Your task to perform on an android device: visit the assistant section in the google photos Image 0: 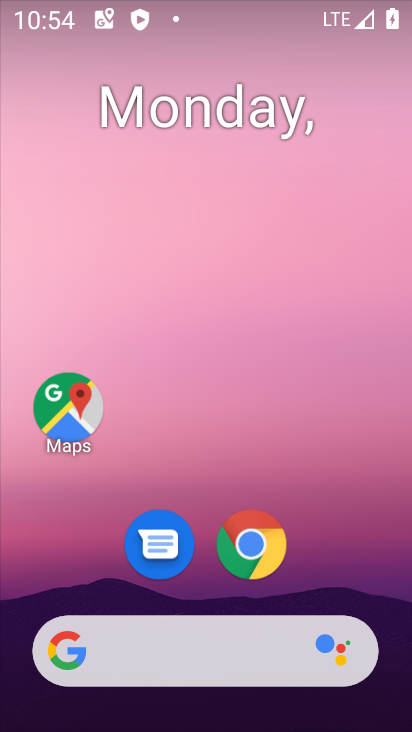
Step 0: click (251, 549)
Your task to perform on an android device: visit the assistant section in the google photos Image 1: 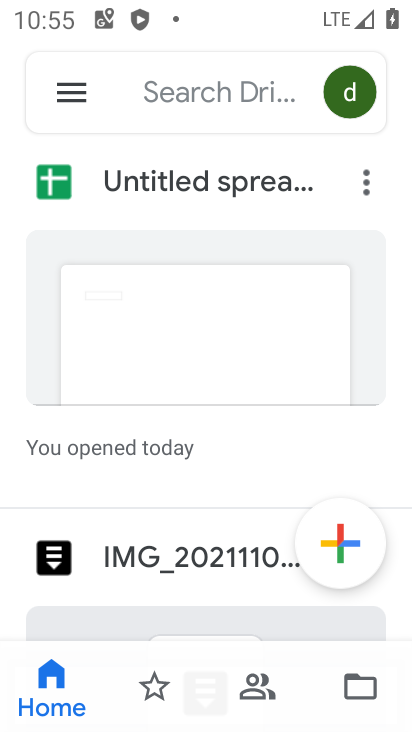
Step 1: press home button
Your task to perform on an android device: visit the assistant section in the google photos Image 2: 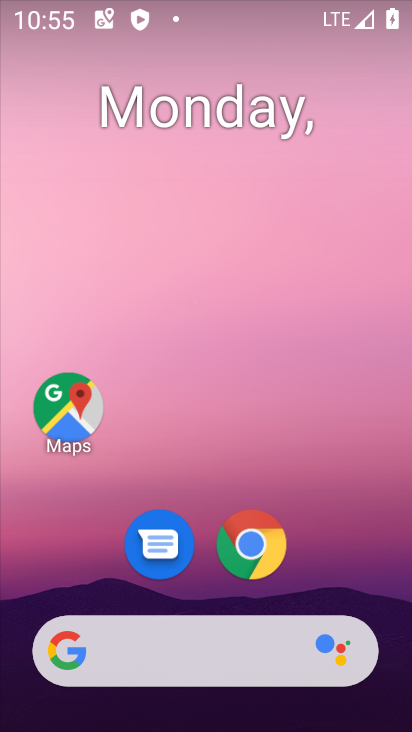
Step 2: click (378, 243)
Your task to perform on an android device: visit the assistant section in the google photos Image 3: 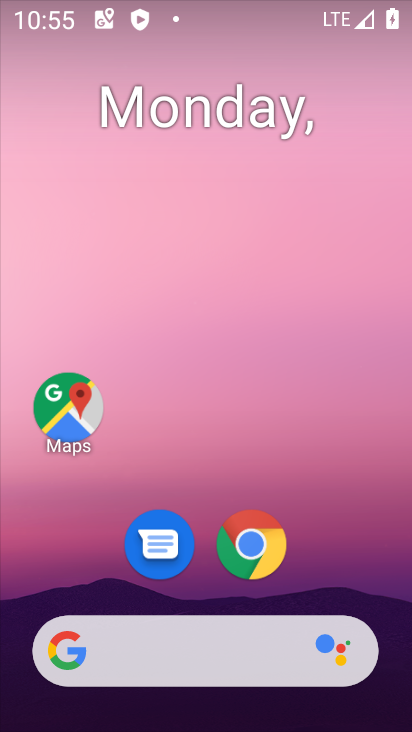
Step 3: drag from (396, 679) to (375, 225)
Your task to perform on an android device: visit the assistant section in the google photos Image 4: 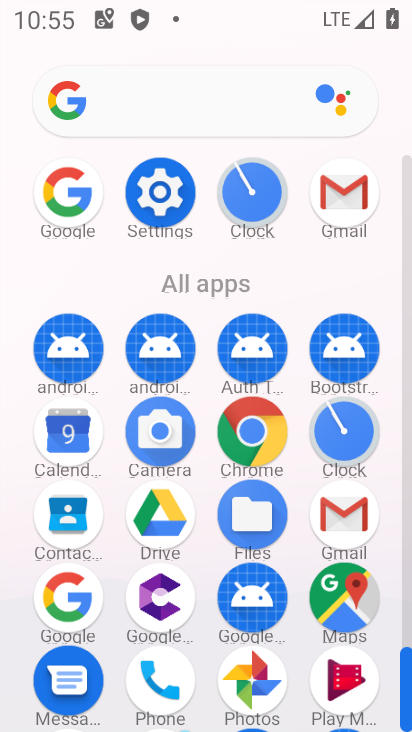
Step 4: click (256, 674)
Your task to perform on an android device: visit the assistant section in the google photos Image 5: 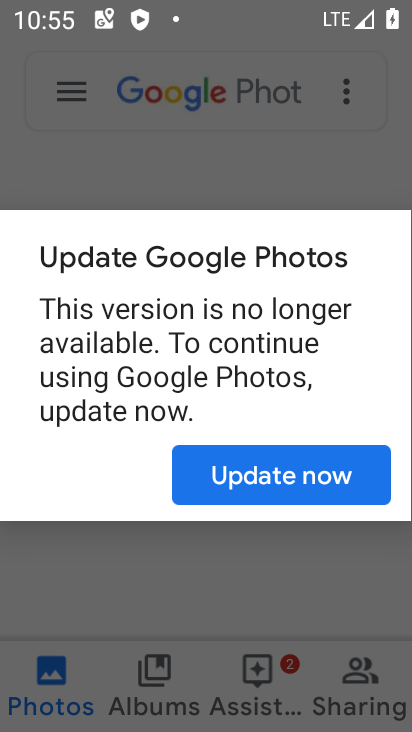
Step 5: click (340, 478)
Your task to perform on an android device: visit the assistant section in the google photos Image 6: 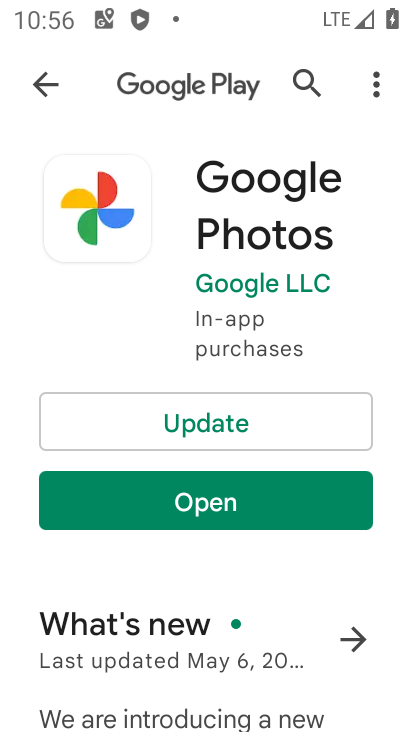
Step 6: click (245, 428)
Your task to perform on an android device: visit the assistant section in the google photos Image 7: 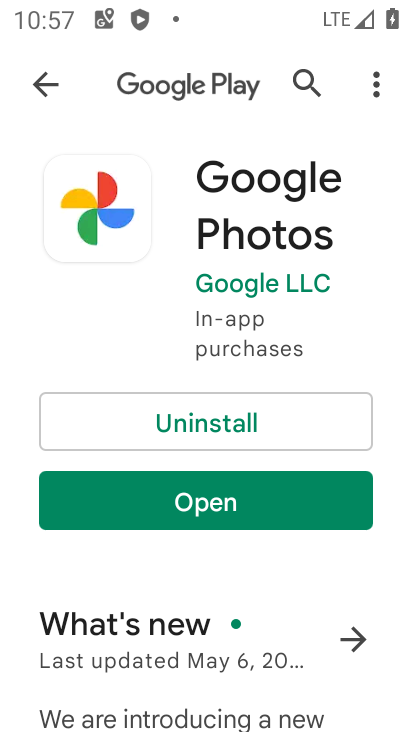
Step 7: click (212, 520)
Your task to perform on an android device: visit the assistant section in the google photos Image 8: 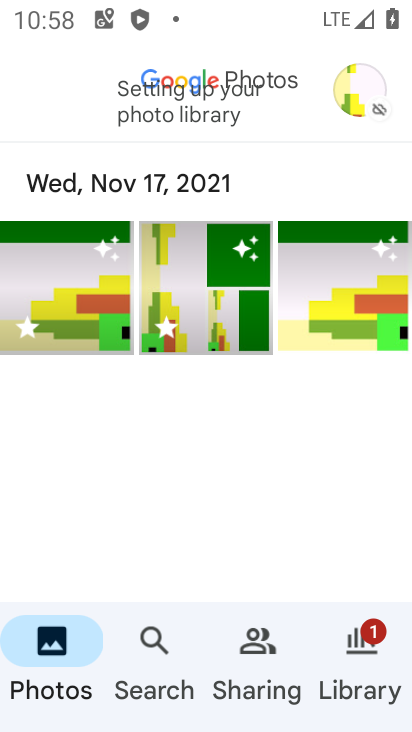
Step 8: click (93, 297)
Your task to perform on an android device: visit the assistant section in the google photos Image 9: 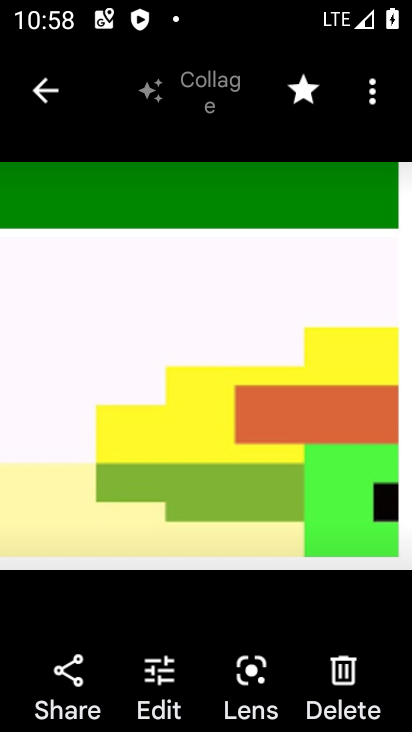
Step 9: click (44, 91)
Your task to perform on an android device: visit the assistant section in the google photos Image 10: 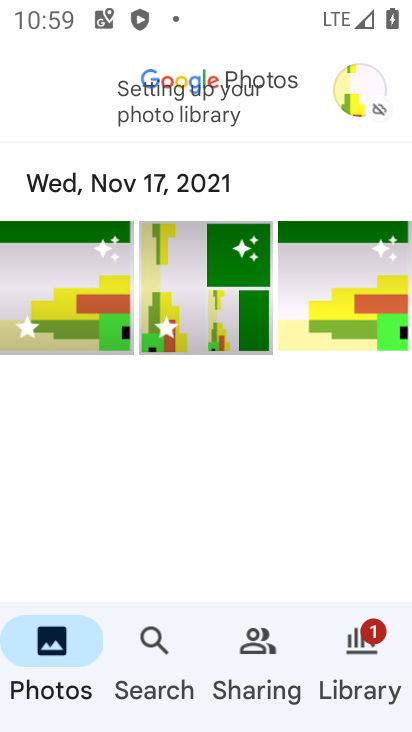
Step 10: task complete